Your task to perform on an android device: Go to network settings Image 0: 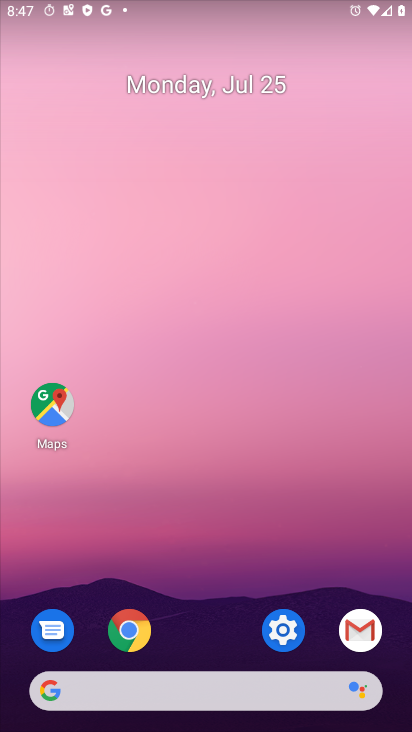
Step 0: click (284, 628)
Your task to perform on an android device: Go to network settings Image 1: 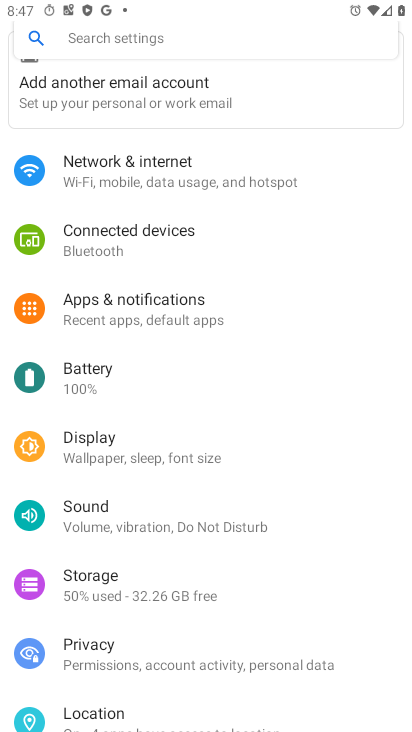
Step 1: click (124, 184)
Your task to perform on an android device: Go to network settings Image 2: 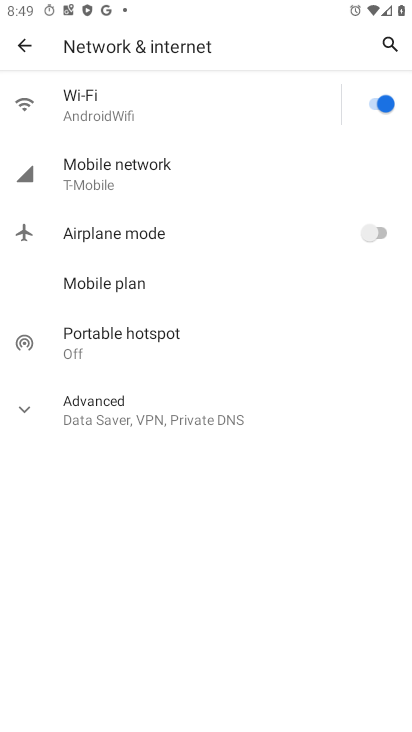
Step 2: task complete